Your task to perform on an android device: see tabs open on other devices in the chrome app Image 0: 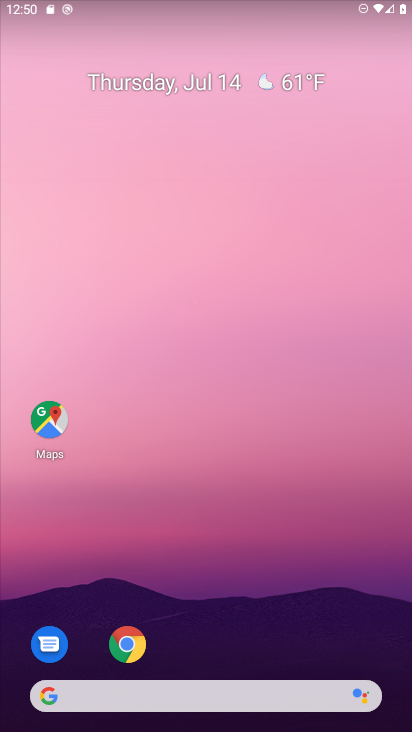
Step 0: drag from (314, 621) to (175, 139)
Your task to perform on an android device: see tabs open on other devices in the chrome app Image 1: 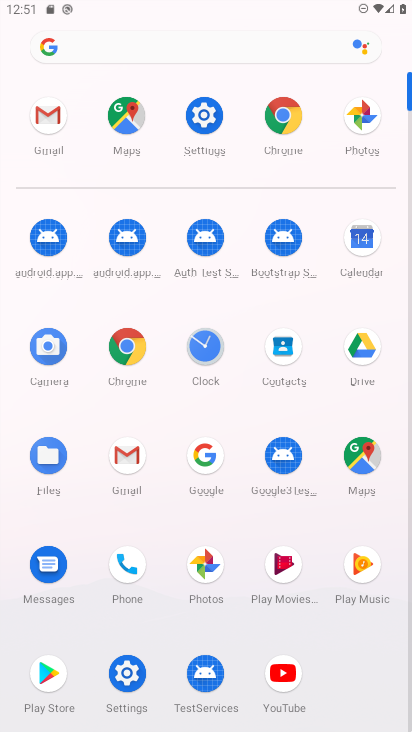
Step 1: click (128, 344)
Your task to perform on an android device: see tabs open on other devices in the chrome app Image 2: 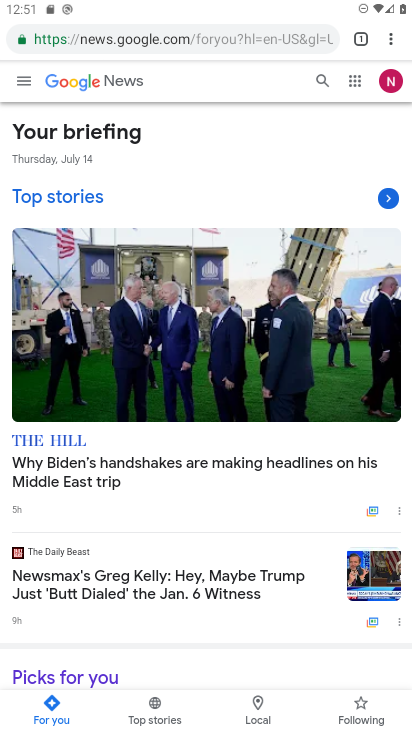
Step 2: task complete